Your task to perform on an android device: turn off wifi Image 0: 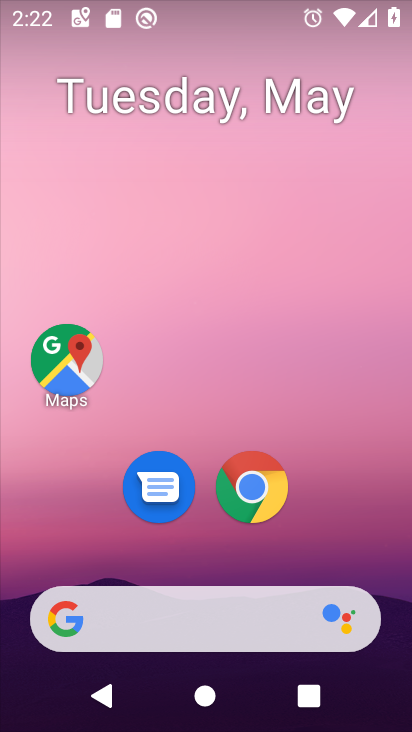
Step 0: drag from (139, 58) to (105, 381)
Your task to perform on an android device: turn off wifi Image 1: 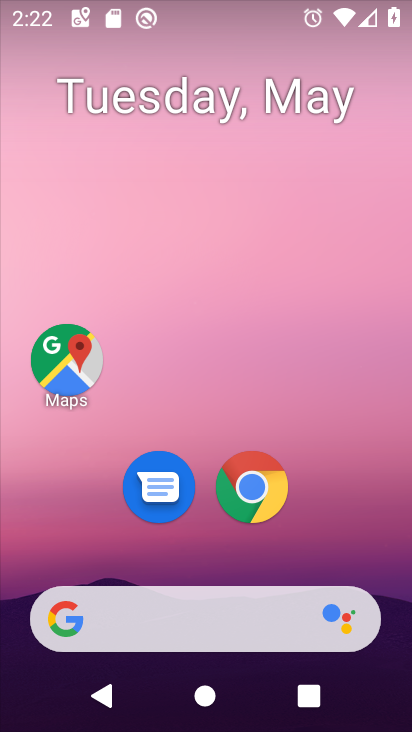
Step 1: drag from (207, 9) to (202, 484)
Your task to perform on an android device: turn off wifi Image 2: 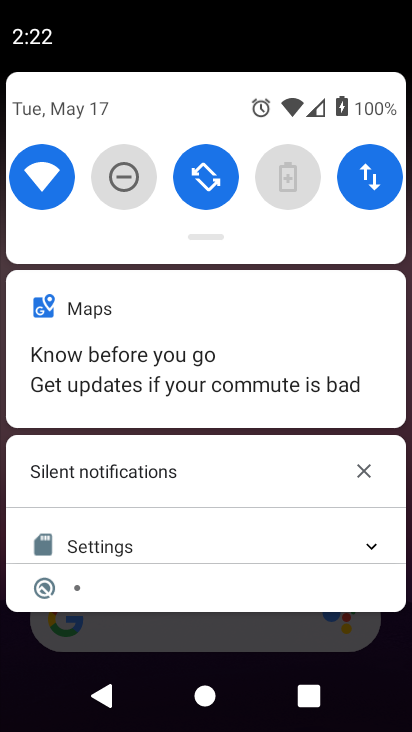
Step 2: click (44, 177)
Your task to perform on an android device: turn off wifi Image 3: 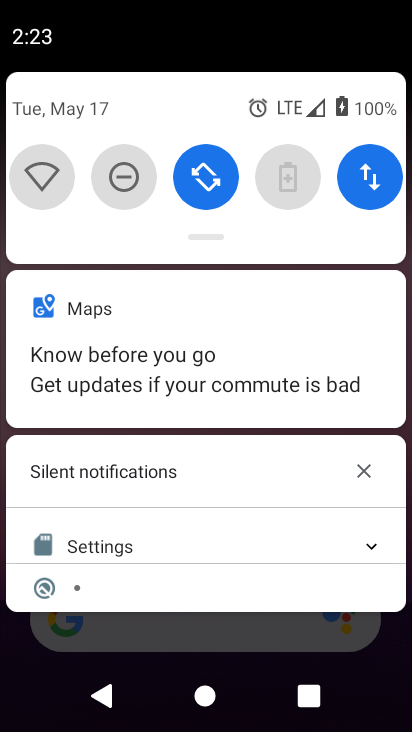
Step 3: task complete